Your task to perform on an android device: What's the weather like in Seoul? Image 0: 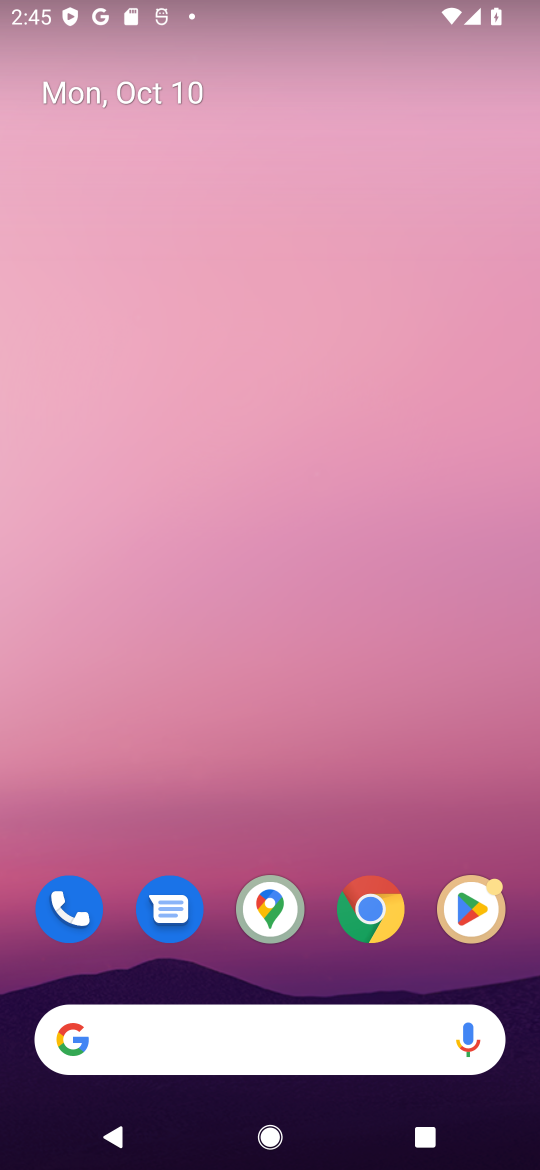
Step 0: click (367, 903)
Your task to perform on an android device: What's the weather like in Seoul? Image 1: 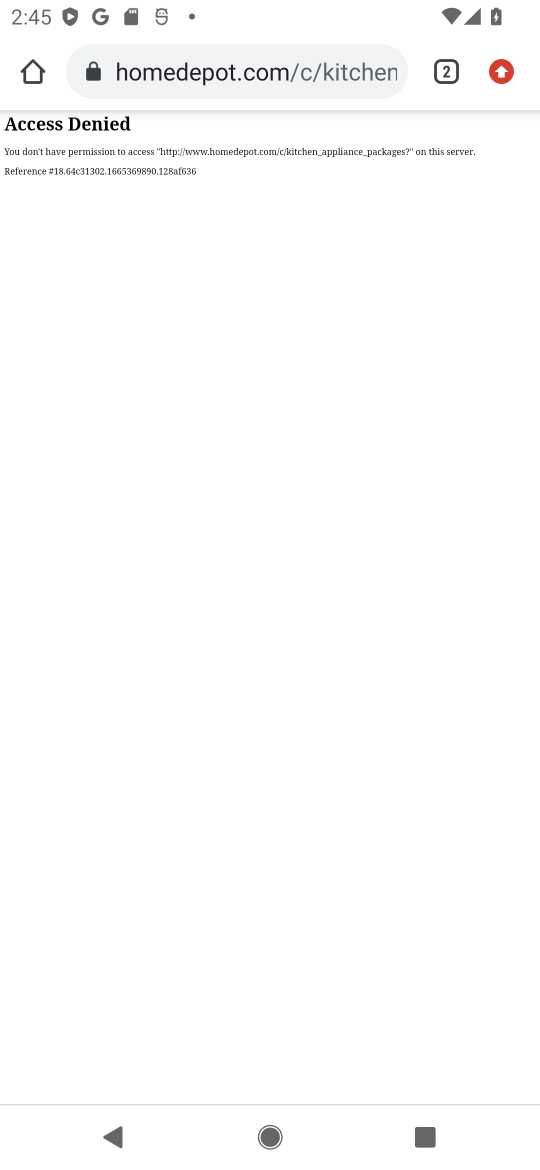
Step 1: click (239, 47)
Your task to perform on an android device: What's the weather like in Seoul? Image 2: 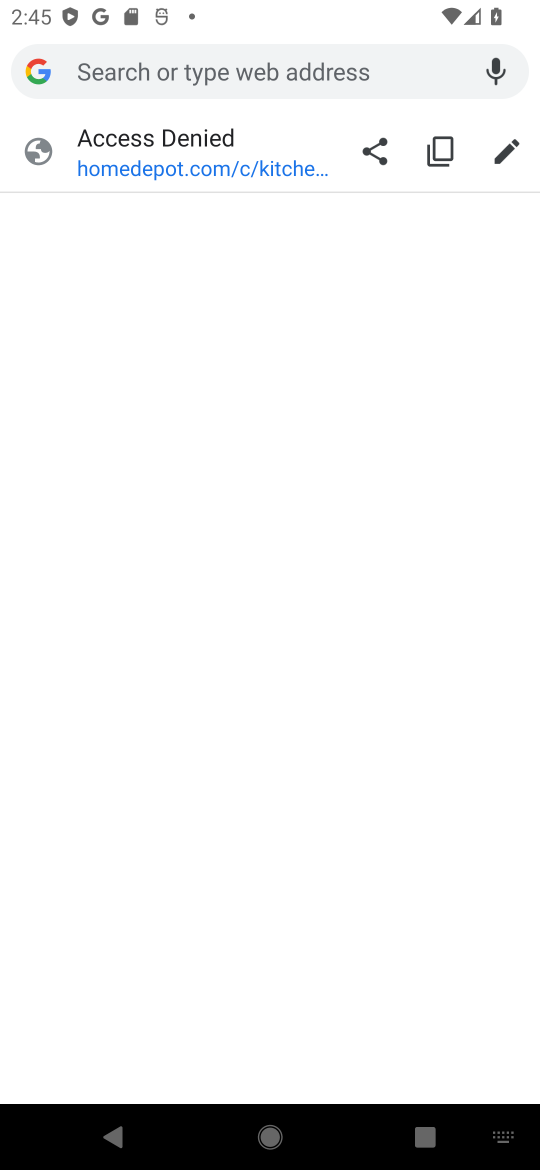
Step 2: type "weather in seoul"
Your task to perform on an android device: What's the weather like in Seoul? Image 3: 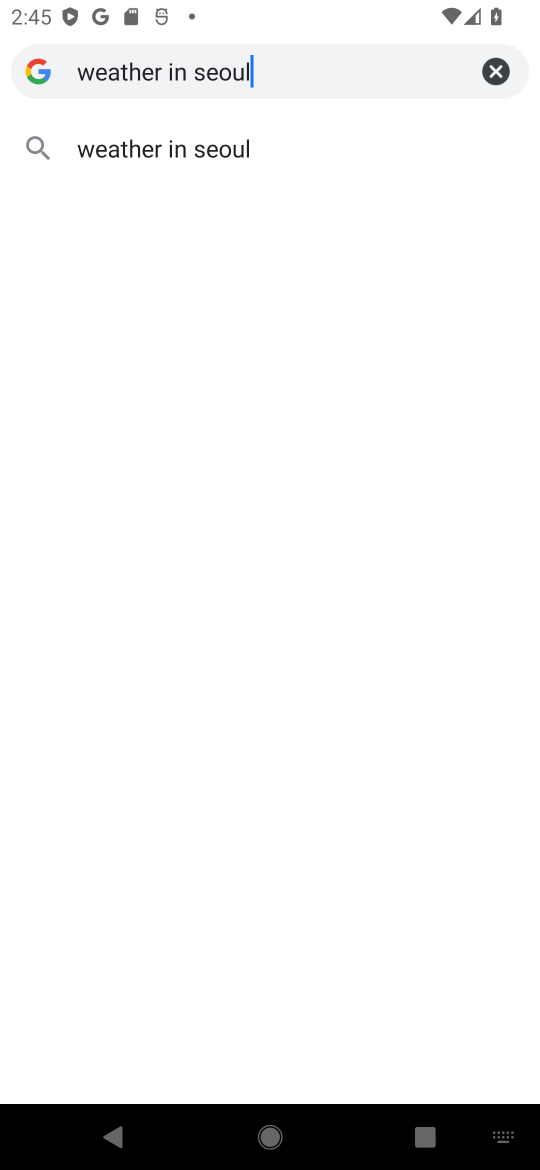
Step 3: click (139, 146)
Your task to perform on an android device: What's the weather like in Seoul? Image 4: 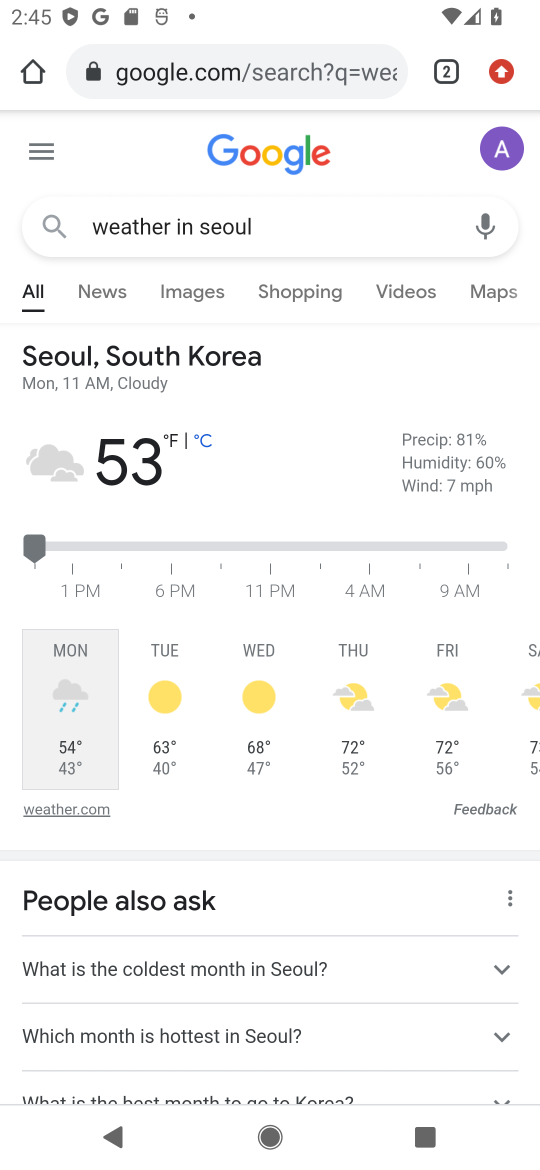
Step 4: task complete